Your task to perform on an android device: Go to Maps Image 0: 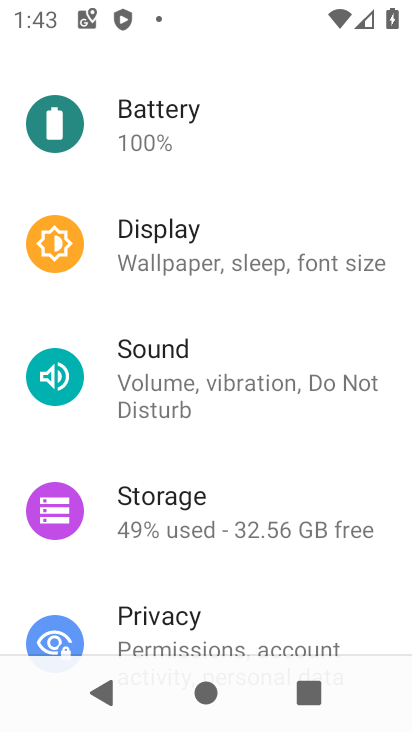
Step 0: press home button
Your task to perform on an android device: Go to Maps Image 1: 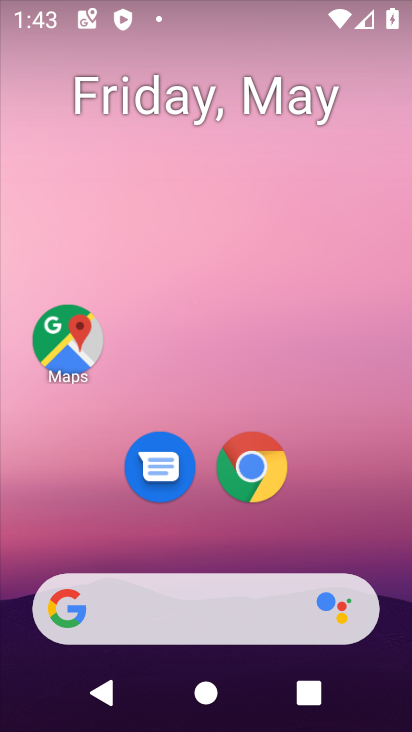
Step 1: drag from (378, 457) to (278, 49)
Your task to perform on an android device: Go to Maps Image 2: 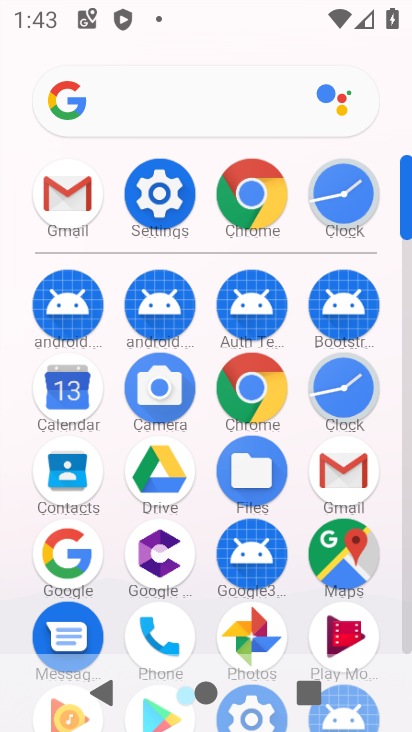
Step 2: click (355, 552)
Your task to perform on an android device: Go to Maps Image 3: 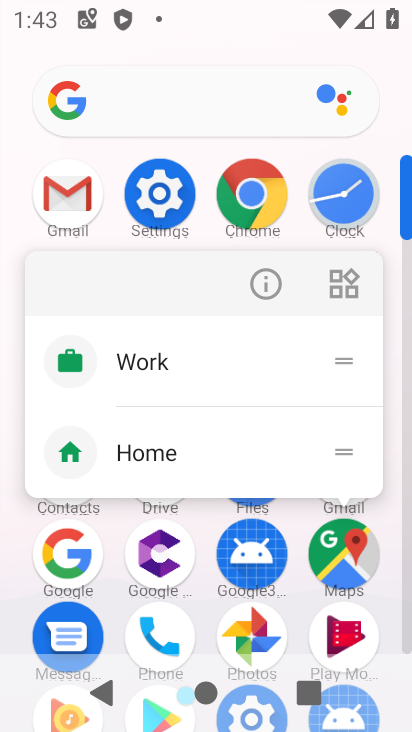
Step 3: click (355, 552)
Your task to perform on an android device: Go to Maps Image 4: 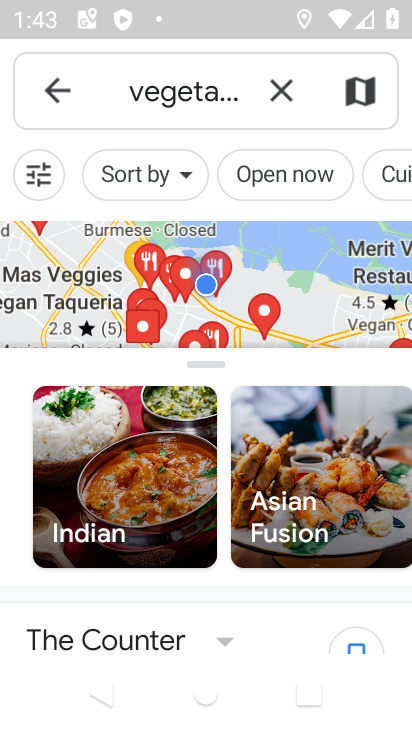
Step 4: task complete